Your task to perform on an android device: move an email to a new category in the gmail app Image 0: 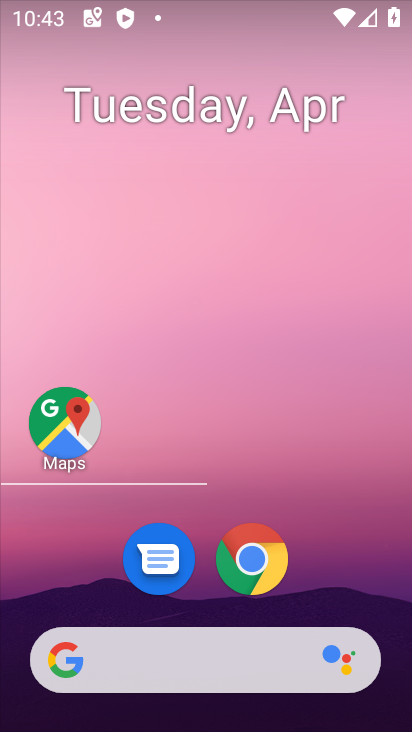
Step 0: click (330, 1)
Your task to perform on an android device: move an email to a new category in the gmail app Image 1: 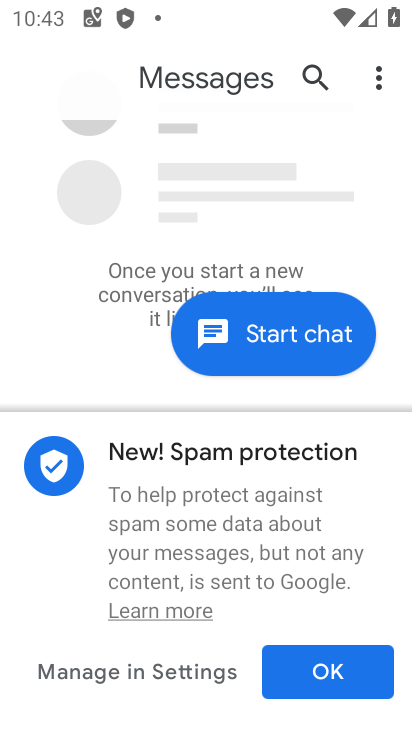
Step 1: press home button
Your task to perform on an android device: move an email to a new category in the gmail app Image 2: 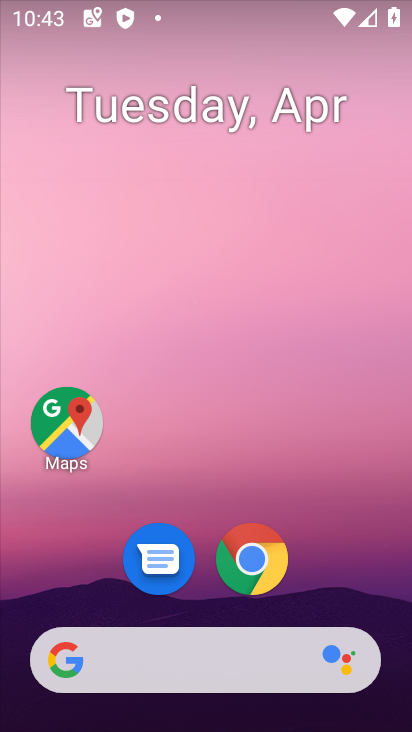
Step 2: drag from (303, 311) to (290, 46)
Your task to perform on an android device: move an email to a new category in the gmail app Image 3: 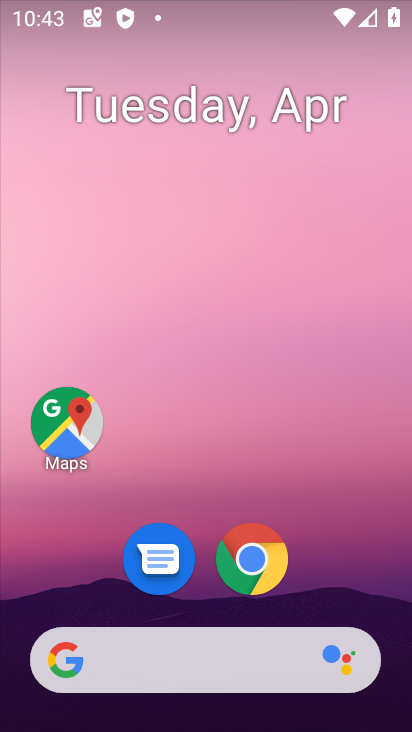
Step 3: drag from (325, 551) to (274, 5)
Your task to perform on an android device: move an email to a new category in the gmail app Image 4: 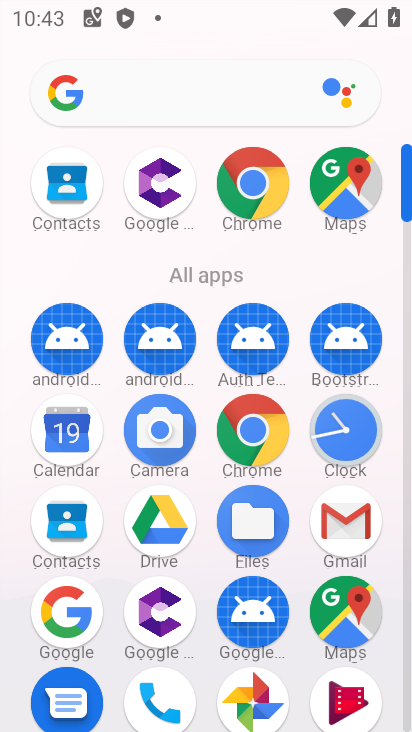
Step 4: click (349, 530)
Your task to perform on an android device: move an email to a new category in the gmail app Image 5: 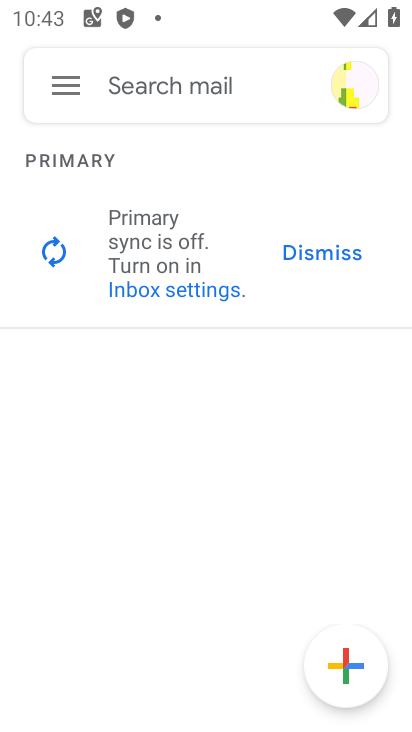
Step 5: click (64, 83)
Your task to perform on an android device: move an email to a new category in the gmail app Image 6: 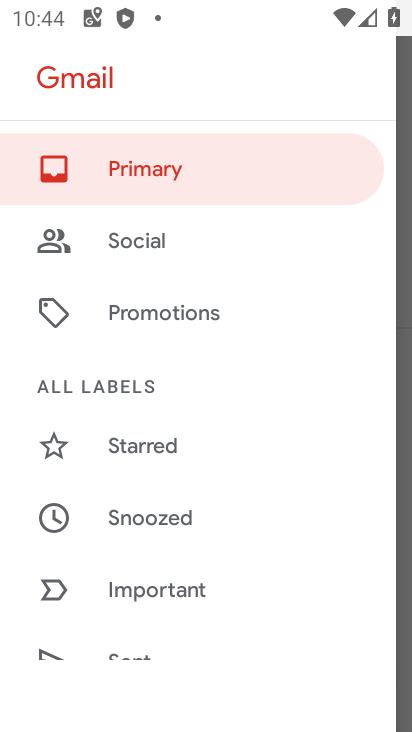
Step 6: drag from (222, 582) to (239, 127)
Your task to perform on an android device: move an email to a new category in the gmail app Image 7: 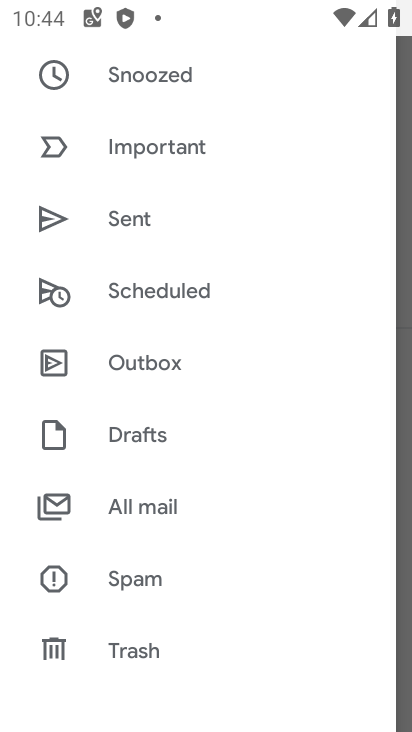
Step 7: click (170, 510)
Your task to perform on an android device: move an email to a new category in the gmail app Image 8: 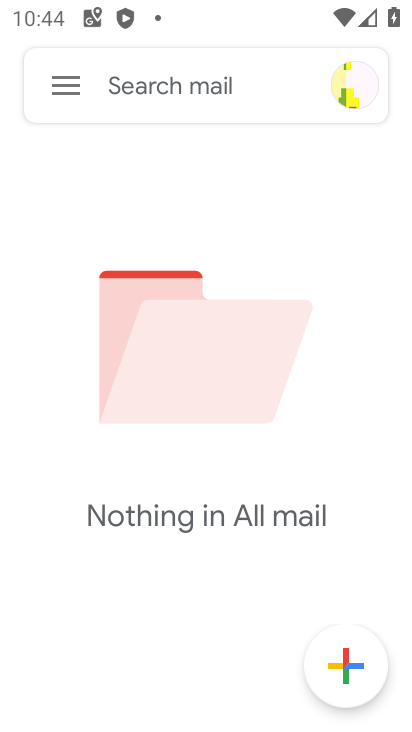
Step 8: task complete